Your task to perform on an android device: Go to network settings Image 0: 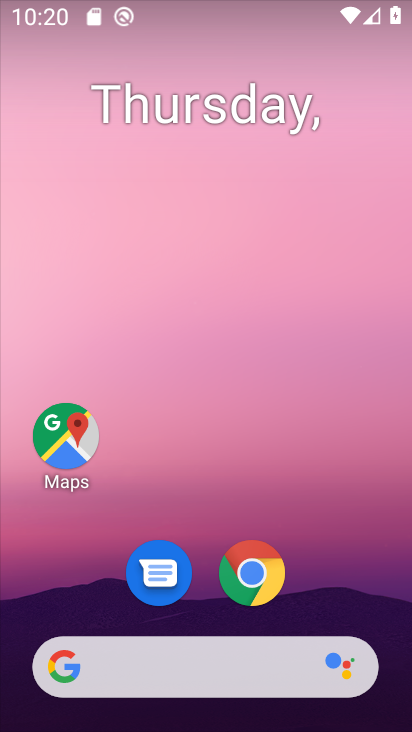
Step 0: drag from (211, 616) to (117, 38)
Your task to perform on an android device: Go to network settings Image 1: 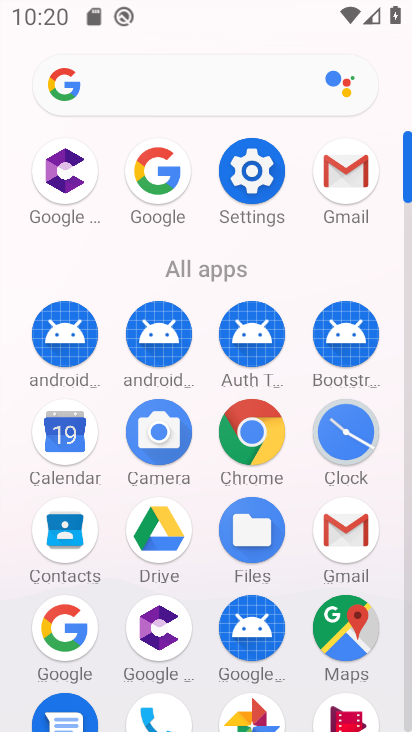
Step 1: click (256, 185)
Your task to perform on an android device: Go to network settings Image 2: 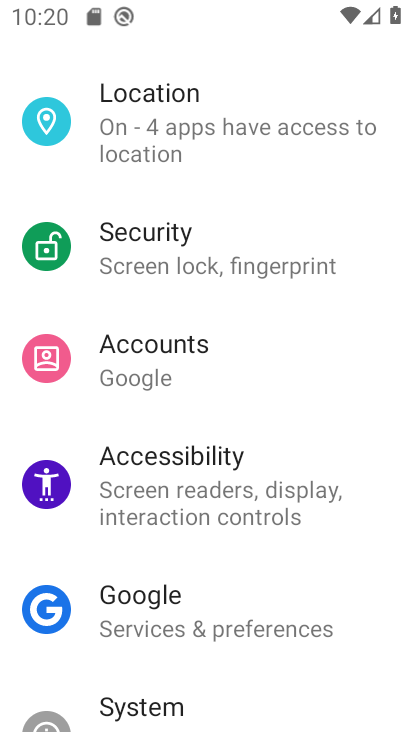
Step 2: drag from (246, 215) to (231, 720)
Your task to perform on an android device: Go to network settings Image 3: 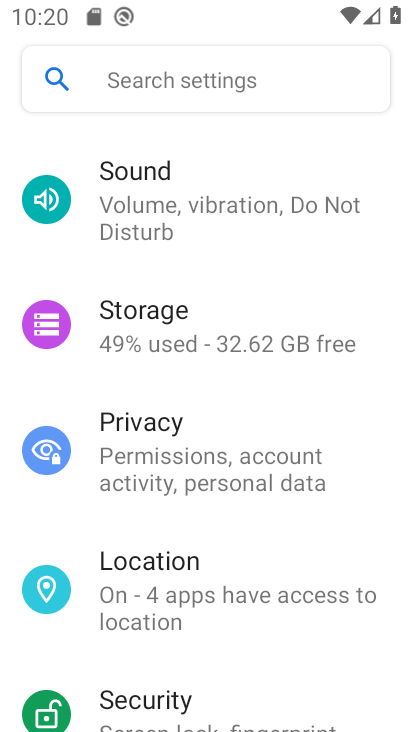
Step 3: drag from (186, 216) to (234, 694)
Your task to perform on an android device: Go to network settings Image 4: 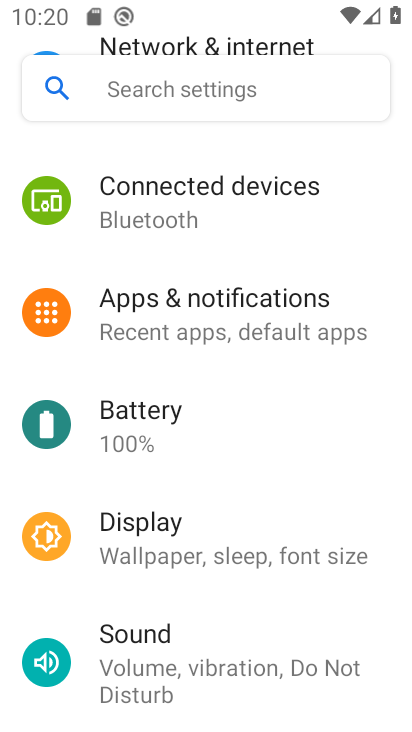
Step 4: drag from (188, 115) to (204, 536)
Your task to perform on an android device: Go to network settings Image 5: 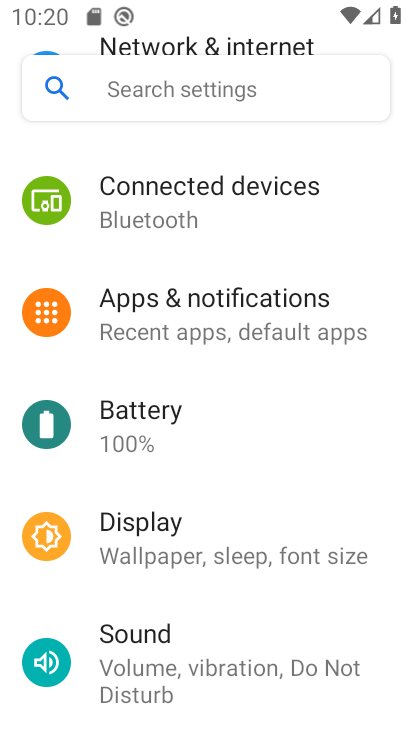
Step 5: drag from (162, 169) to (186, 536)
Your task to perform on an android device: Go to network settings Image 6: 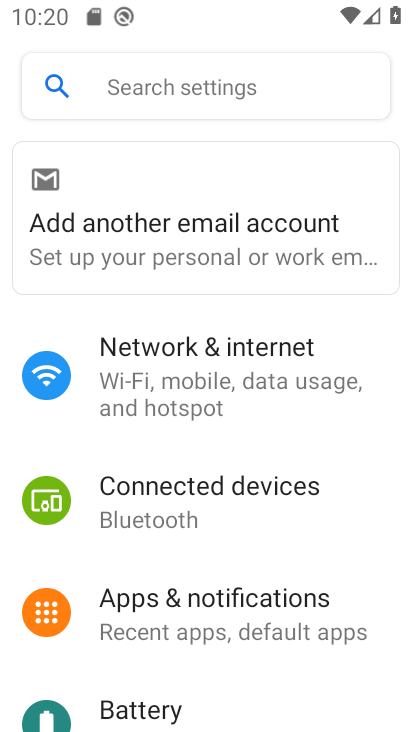
Step 6: click (177, 374)
Your task to perform on an android device: Go to network settings Image 7: 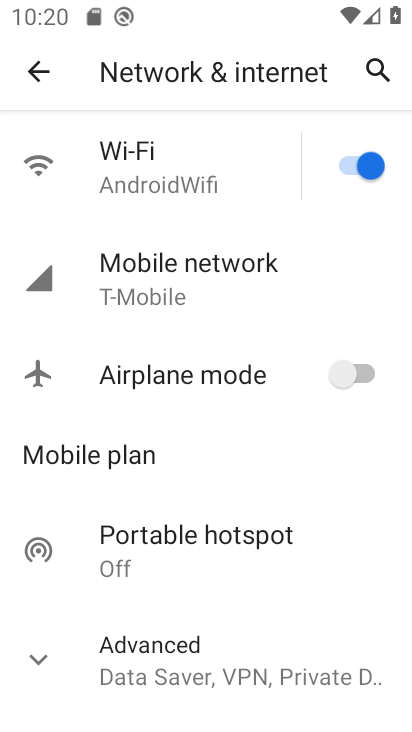
Step 7: task complete